Your task to perform on an android device: Open maps Image 0: 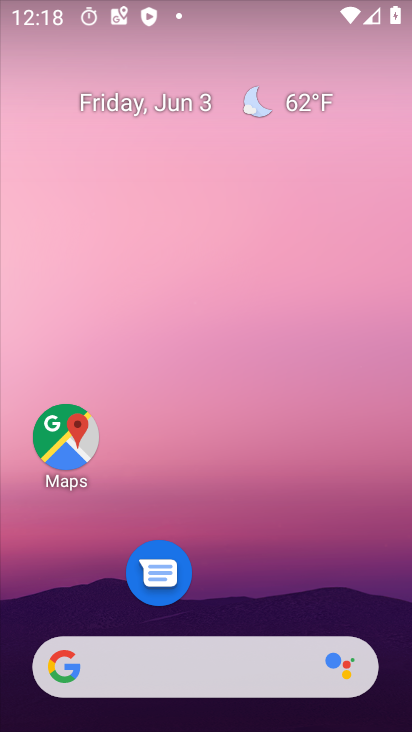
Step 0: drag from (197, 631) to (259, 184)
Your task to perform on an android device: Open maps Image 1: 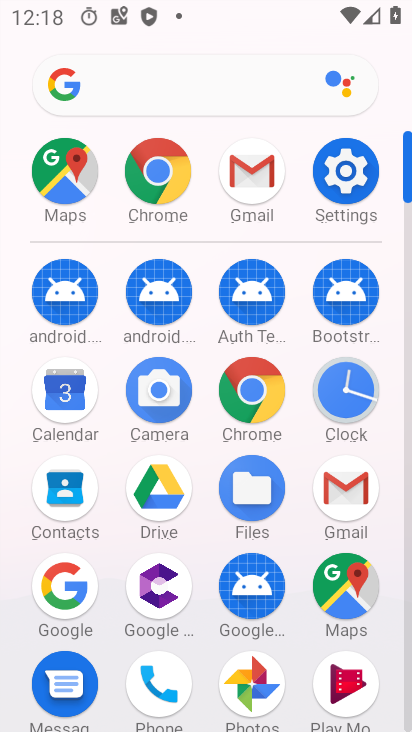
Step 1: click (348, 582)
Your task to perform on an android device: Open maps Image 2: 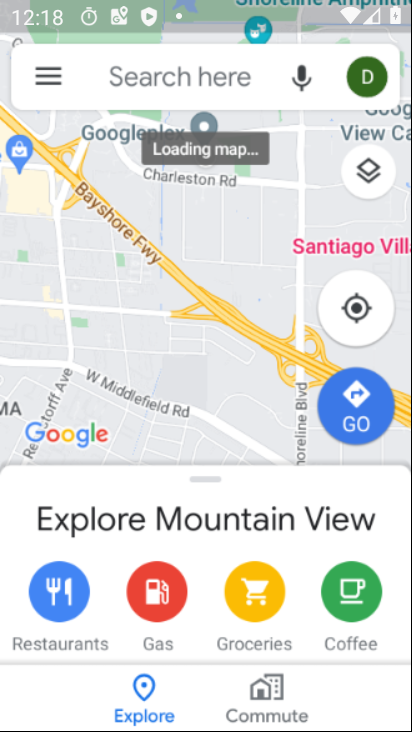
Step 2: click (349, 583)
Your task to perform on an android device: Open maps Image 3: 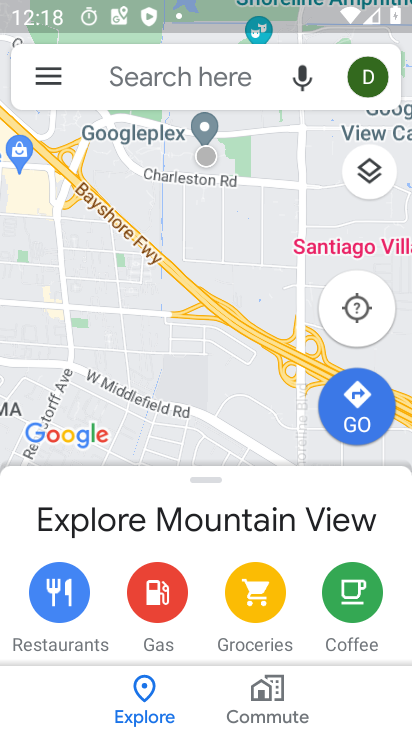
Step 3: task complete